Your task to perform on an android device: What's on my calendar tomorrow? Image 0: 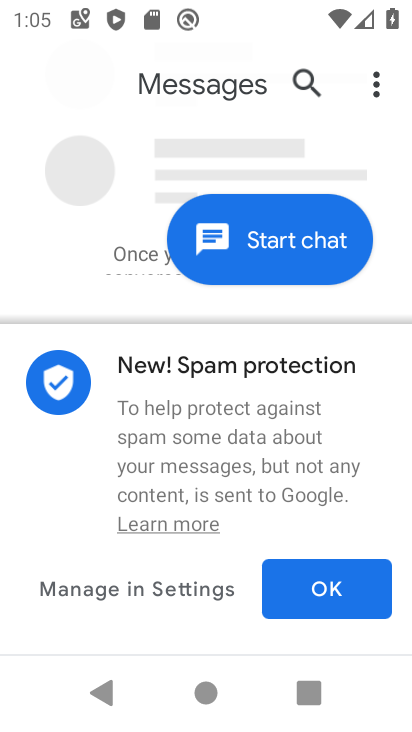
Step 0: press home button
Your task to perform on an android device: What's on my calendar tomorrow? Image 1: 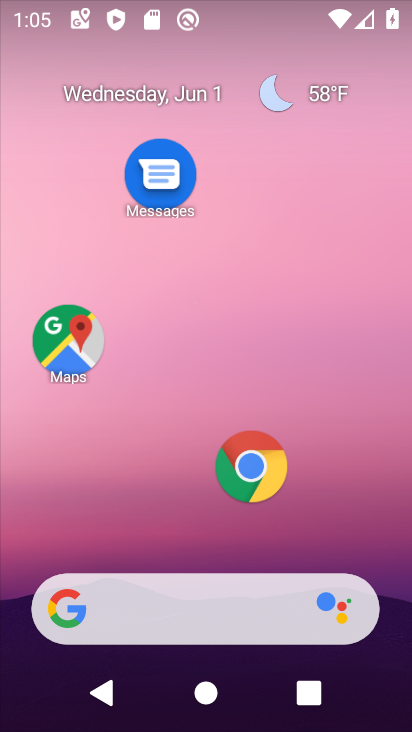
Step 1: drag from (163, 725) to (168, 471)
Your task to perform on an android device: What's on my calendar tomorrow? Image 2: 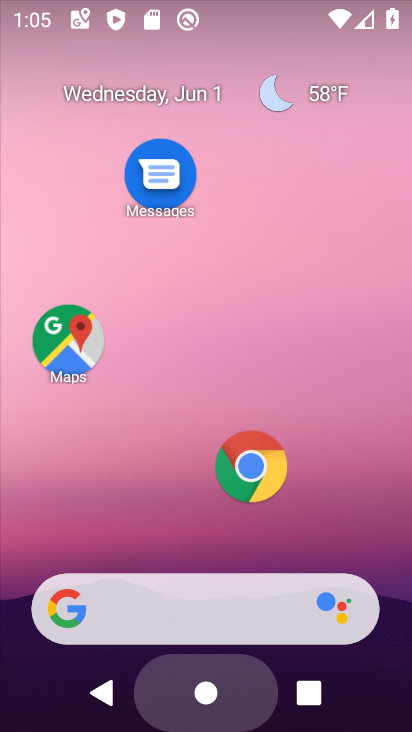
Step 2: click (172, 46)
Your task to perform on an android device: What's on my calendar tomorrow? Image 3: 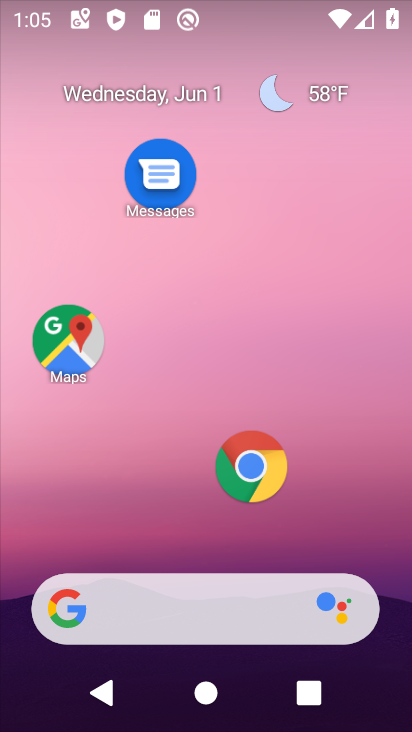
Step 3: drag from (168, 729) to (189, 22)
Your task to perform on an android device: What's on my calendar tomorrow? Image 4: 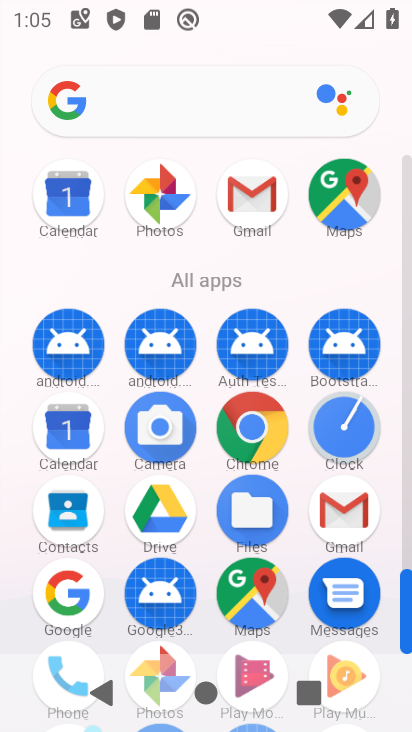
Step 4: click (61, 441)
Your task to perform on an android device: What's on my calendar tomorrow? Image 5: 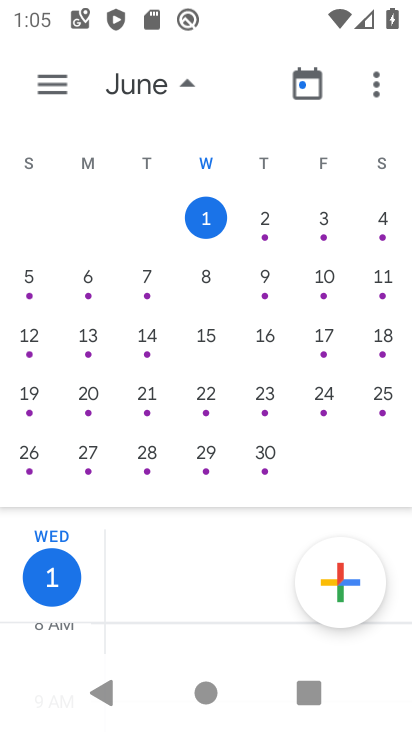
Step 5: click (187, 88)
Your task to perform on an android device: What's on my calendar tomorrow? Image 6: 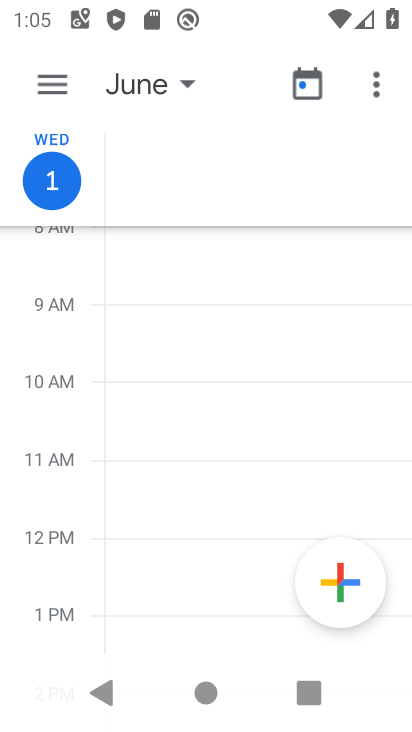
Step 6: click (44, 84)
Your task to perform on an android device: What's on my calendar tomorrow? Image 7: 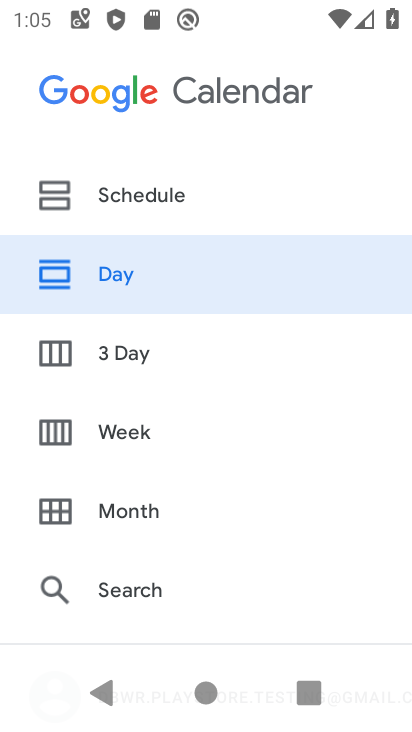
Step 7: click (154, 279)
Your task to perform on an android device: What's on my calendar tomorrow? Image 8: 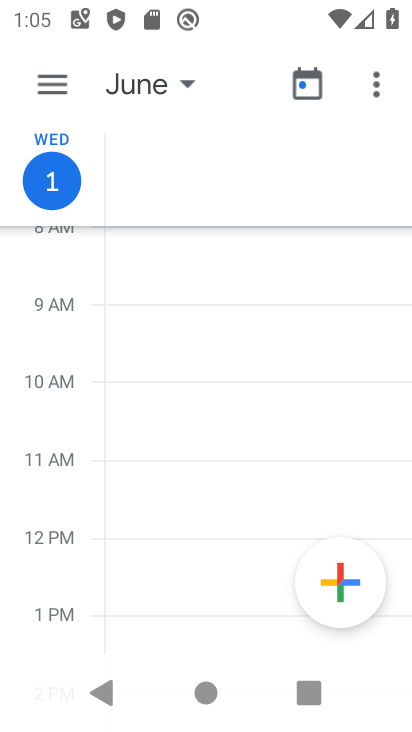
Step 8: click (145, 94)
Your task to perform on an android device: What's on my calendar tomorrow? Image 9: 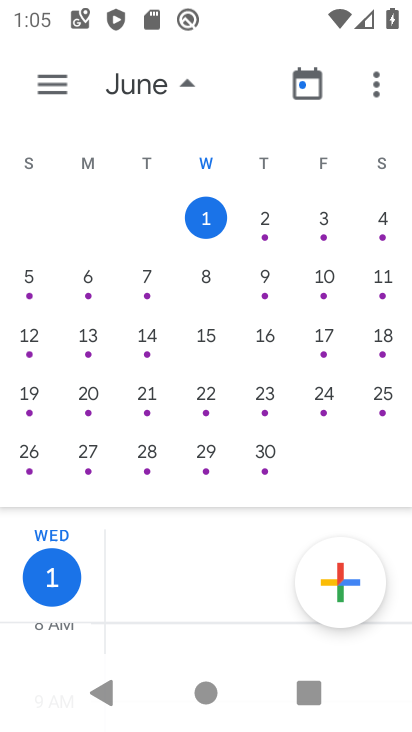
Step 9: click (256, 219)
Your task to perform on an android device: What's on my calendar tomorrow? Image 10: 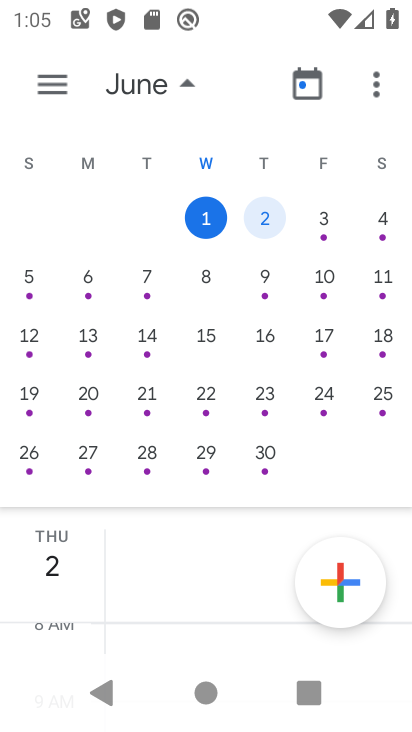
Step 10: click (152, 85)
Your task to perform on an android device: What's on my calendar tomorrow? Image 11: 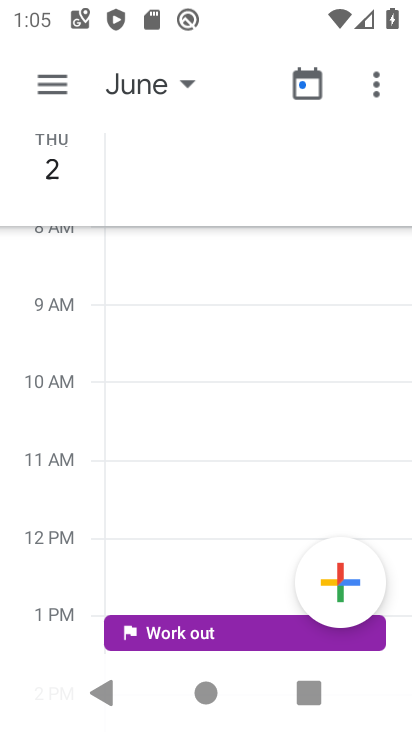
Step 11: drag from (203, 486) to (209, 239)
Your task to perform on an android device: What's on my calendar tomorrow? Image 12: 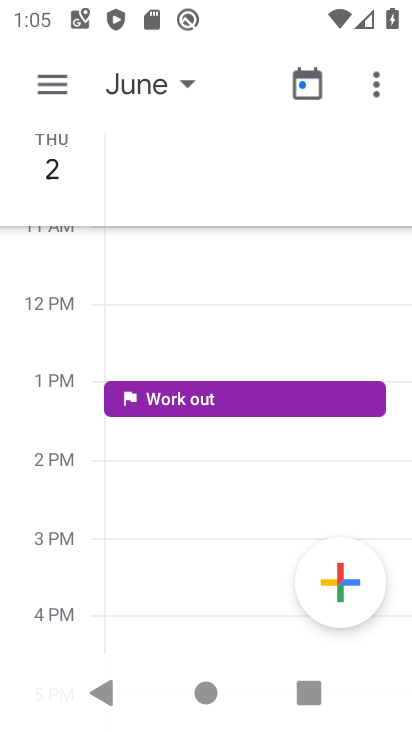
Step 12: click (204, 398)
Your task to perform on an android device: What's on my calendar tomorrow? Image 13: 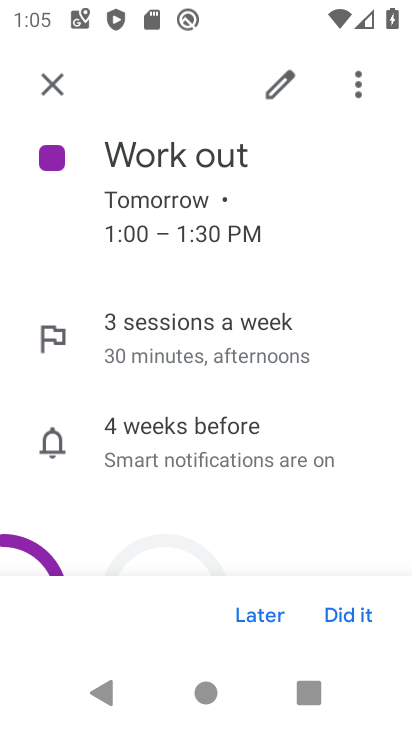
Step 13: task complete